Your task to perform on an android device: Open Yahoo.com Image 0: 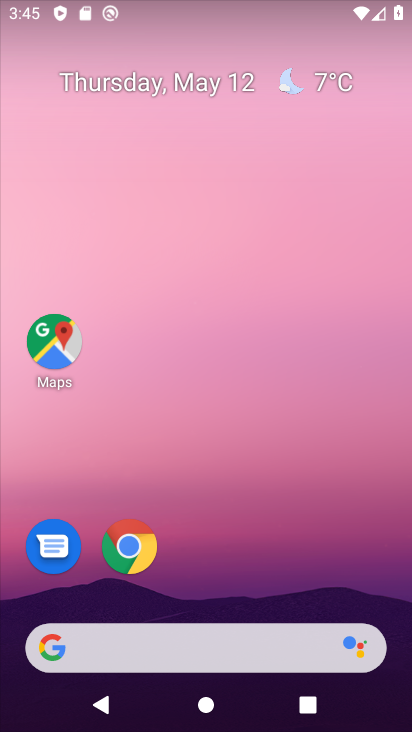
Step 0: click (146, 559)
Your task to perform on an android device: Open Yahoo.com Image 1: 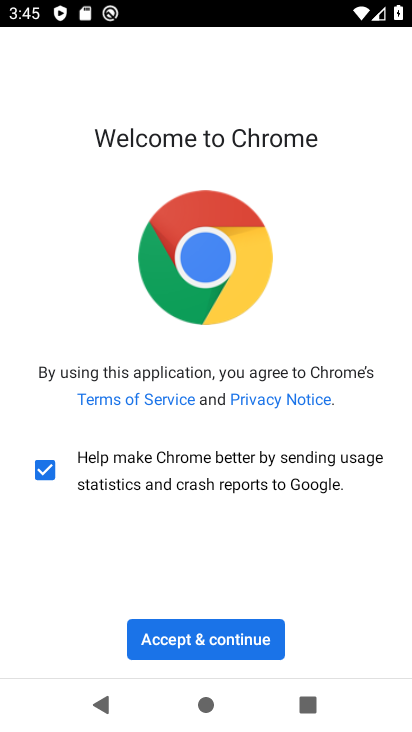
Step 1: click (233, 639)
Your task to perform on an android device: Open Yahoo.com Image 2: 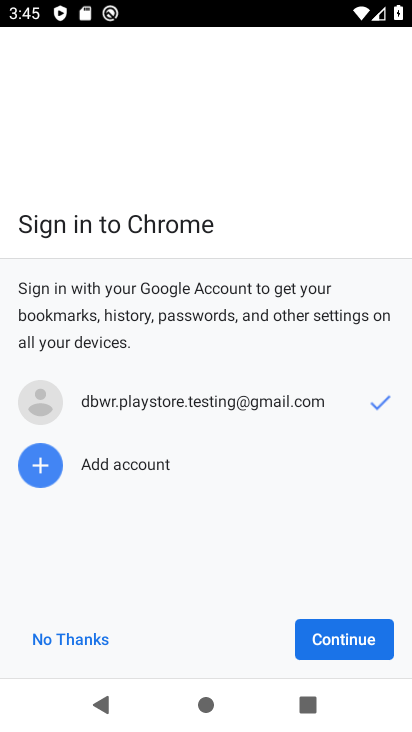
Step 2: click (355, 641)
Your task to perform on an android device: Open Yahoo.com Image 3: 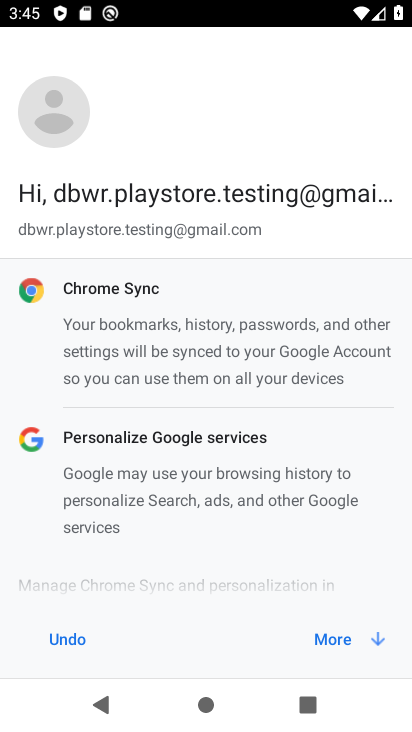
Step 3: click (355, 642)
Your task to perform on an android device: Open Yahoo.com Image 4: 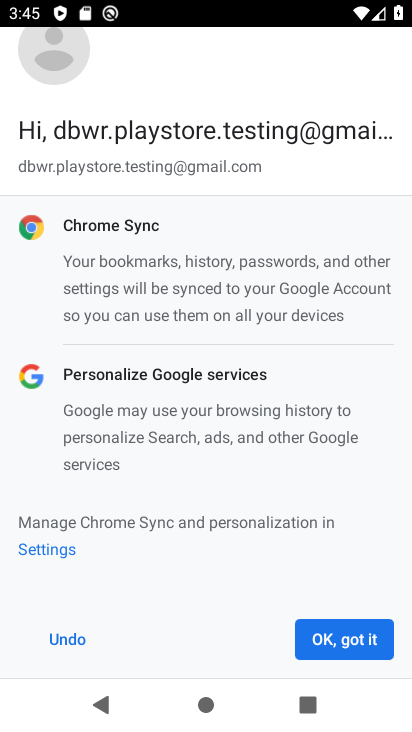
Step 4: click (354, 642)
Your task to perform on an android device: Open Yahoo.com Image 5: 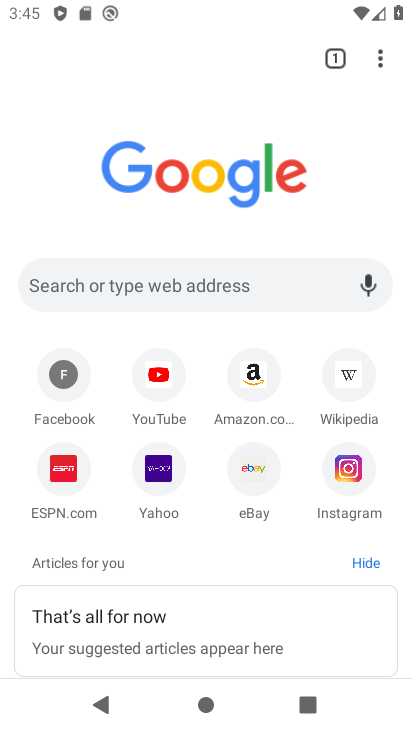
Step 5: click (175, 487)
Your task to perform on an android device: Open Yahoo.com Image 6: 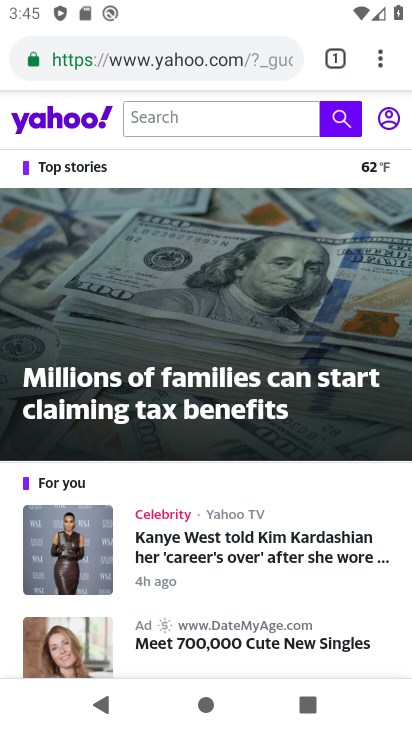
Step 6: task complete